Your task to perform on an android device: Go to Amazon Image 0: 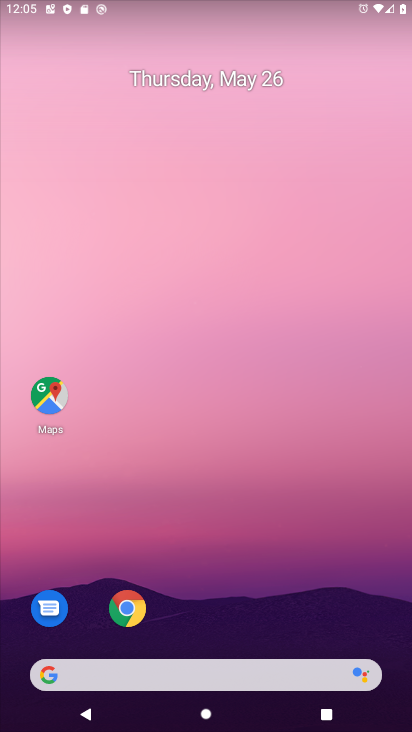
Step 0: click (128, 609)
Your task to perform on an android device: Go to Amazon Image 1: 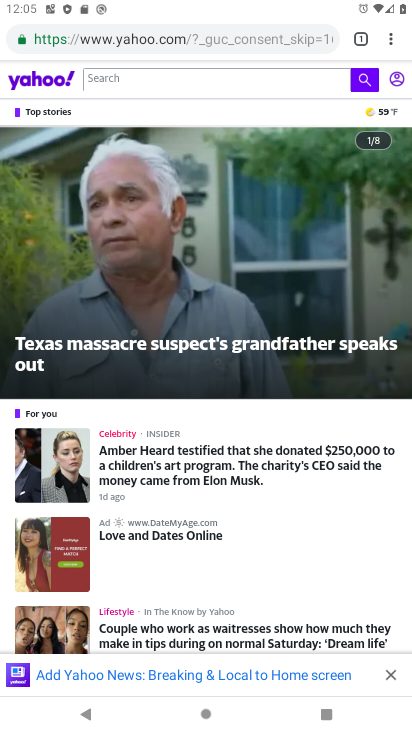
Step 1: click (391, 43)
Your task to perform on an android device: Go to Amazon Image 2: 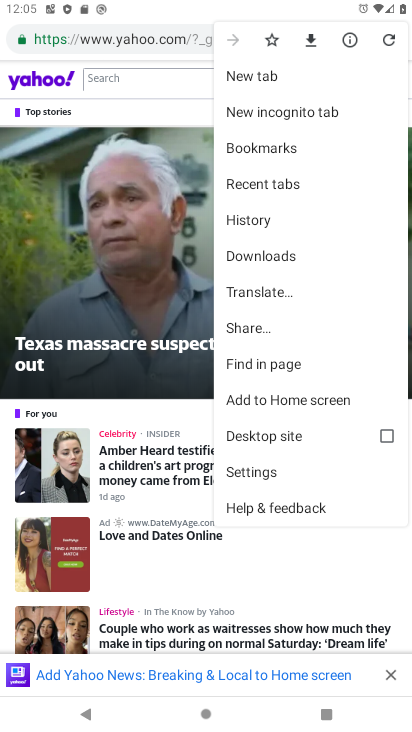
Step 2: click (265, 71)
Your task to perform on an android device: Go to Amazon Image 3: 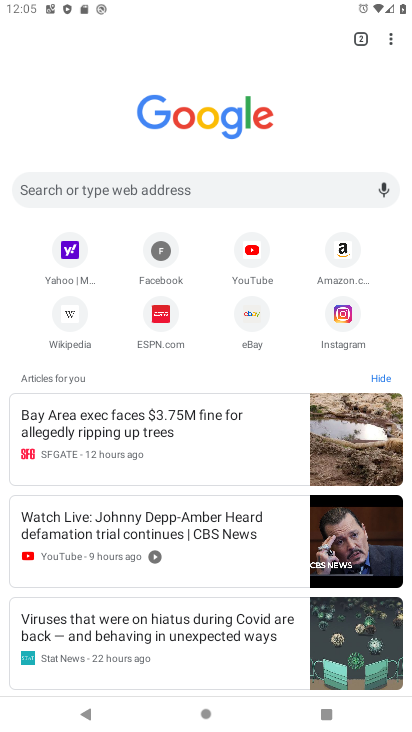
Step 3: click (340, 247)
Your task to perform on an android device: Go to Amazon Image 4: 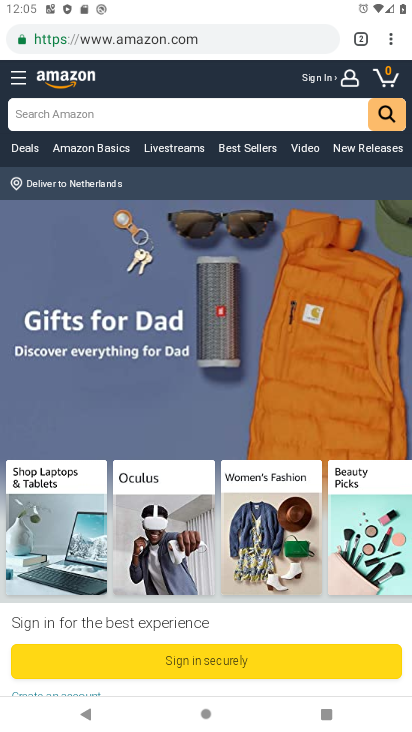
Step 4: task complete